Your task to perform on an android device: Go to Amazon Image 0: 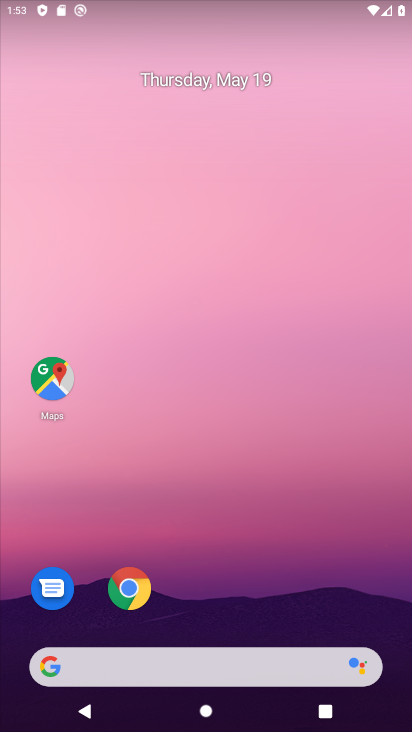
Step 0: drag from (188, 594) to (190, 161)
Your task to perform on an android device: Go to Amazon Image 1: 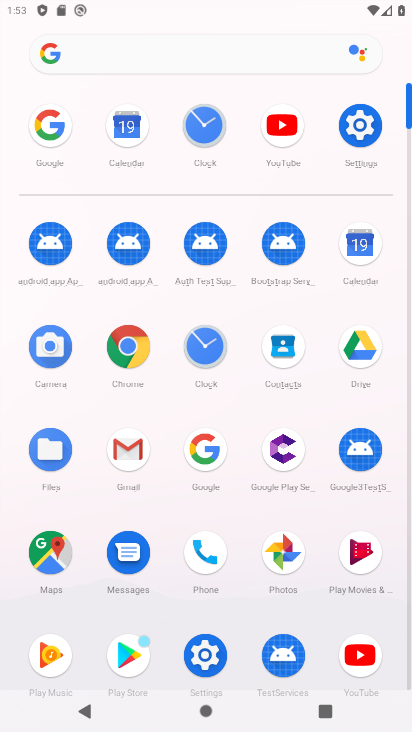
Step 1: click (128, 349)
Your task to perform on an android device: Go to Amazon Image 2: 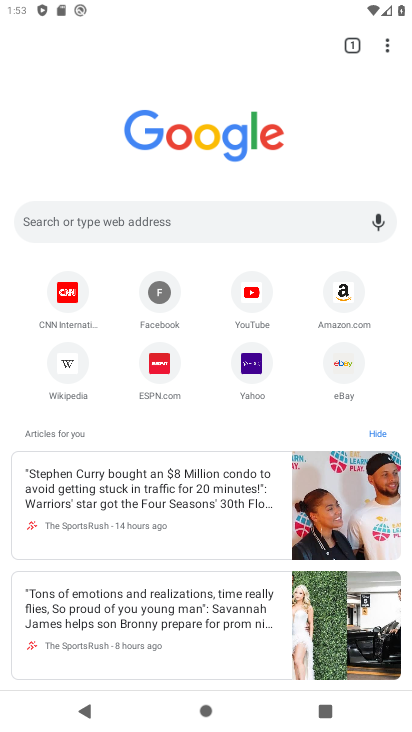
Step 2: click (351, 293)
Your task to perform on an android device: Go to Amazon Image 3: 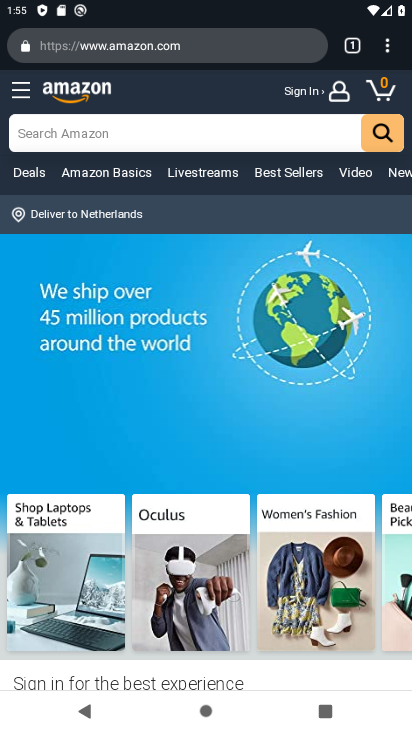
Step 3: task complete